Your task to perform on an android device: Go to notification settings Image 0: 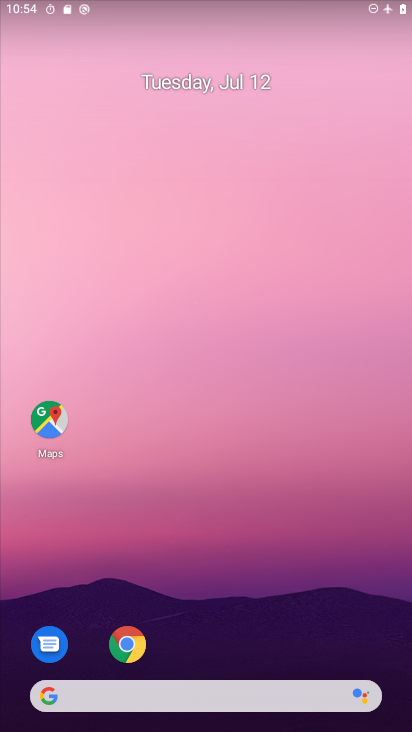
Step 0: drag from (214, 641) to (220, 177)
Your task to perform on an android device: Go to notification settings Image 1: 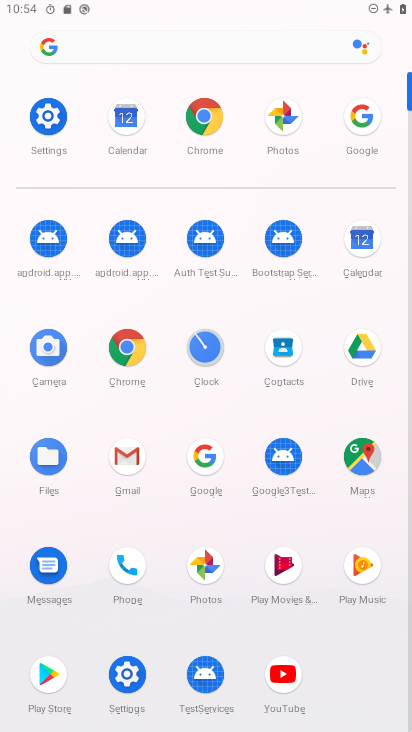
Step 1: click (60, 109)
Your task to perform on an android device: Go to notification settings Image 2: 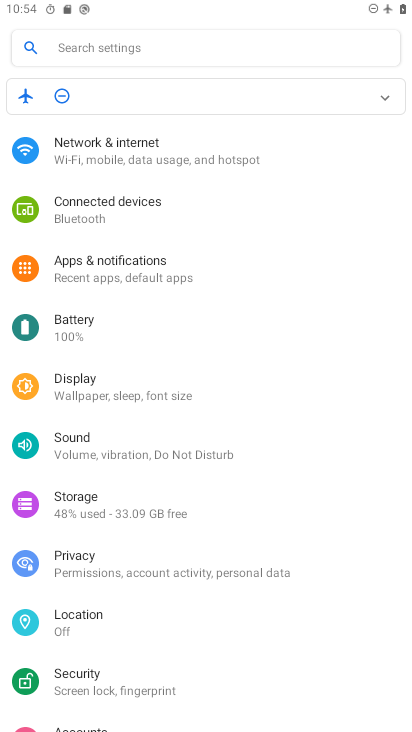
Step 2: click (186, 269)
Your task to perform on an android device: Go to notification settings Image 3: 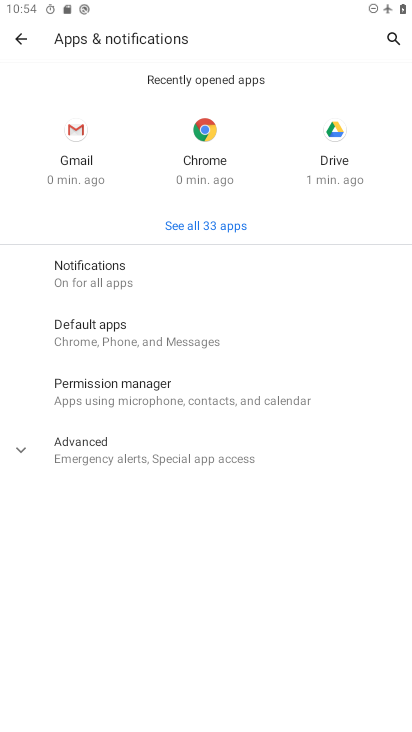
Step 3: click (149, 268)
Your task to perform on an android device: Go to notification settings Image 4: 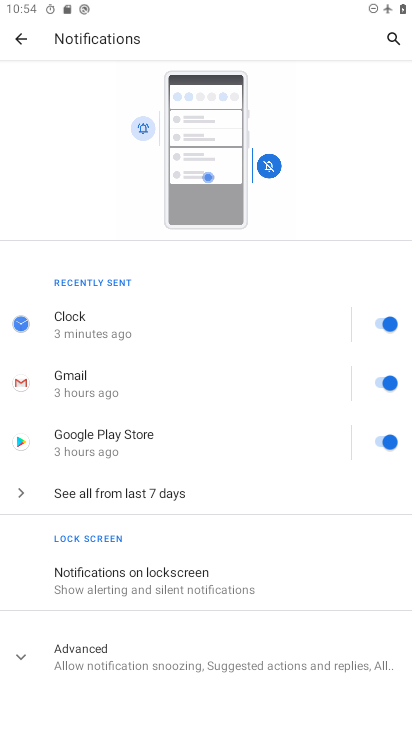
Step 4: task complete